Your task to perform on an android device: add a contact in the contacts app Image 0: 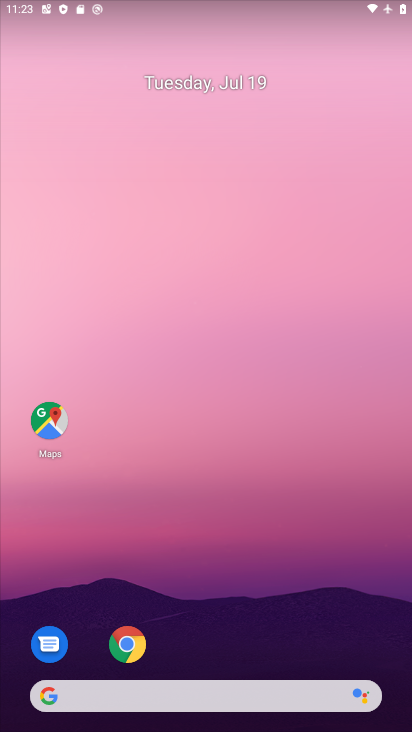
Step 0: drag from (30, 691) to (270, 141)
Your task to perform on an android device: add a contact in the contacts app Image 1: 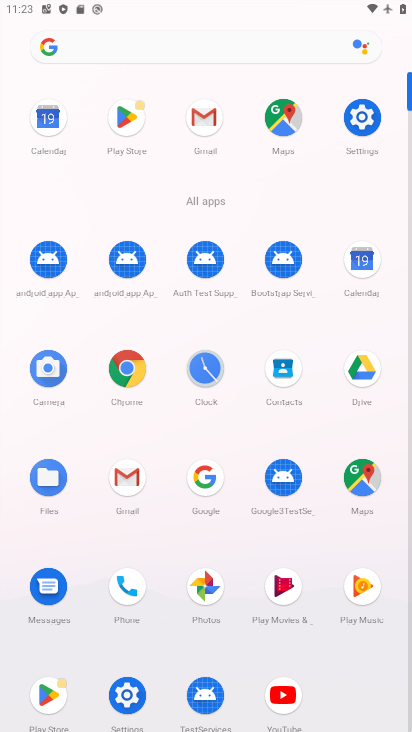
Step 1: click (275, 371)
Your task to perform on an android device: add a contact in the contacts app Image 2: 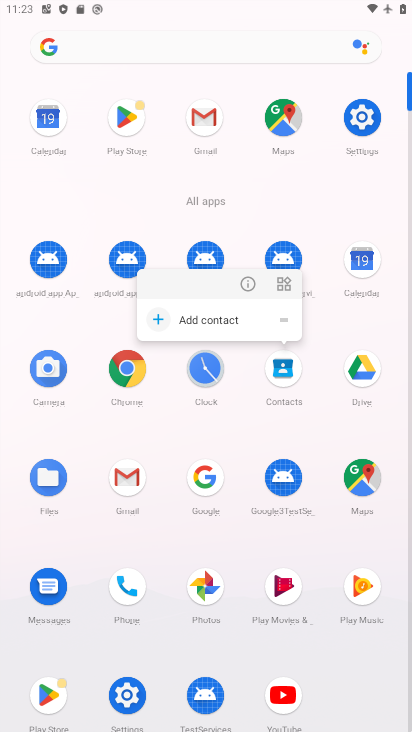
Step 2: click (284, 380)
Your task to perform on an android device: add a contact in the contacts app Image 3: 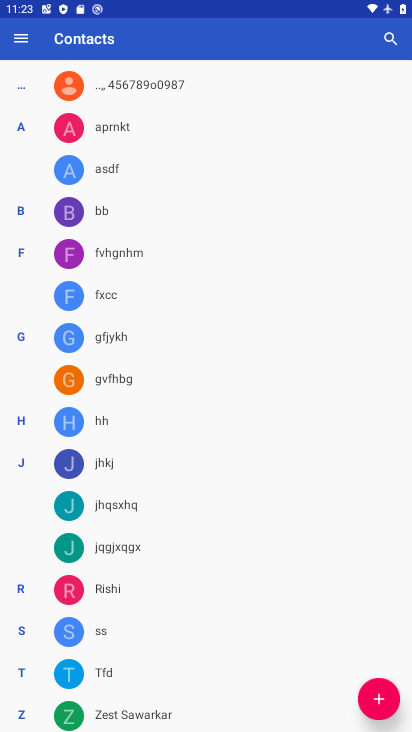
Step 3: click (368, 697)
Your task to perform on an android device: add a contact in the contacts app Image 4: 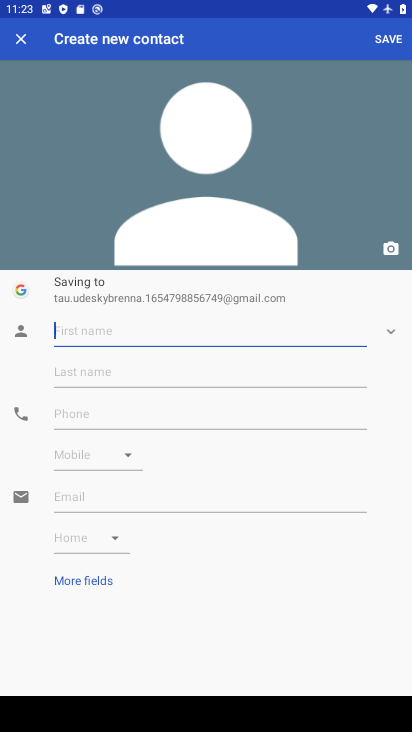
Step 4: click (75, 331)
Your task to perform on an android device: add a contact in the contacts app Image 5: 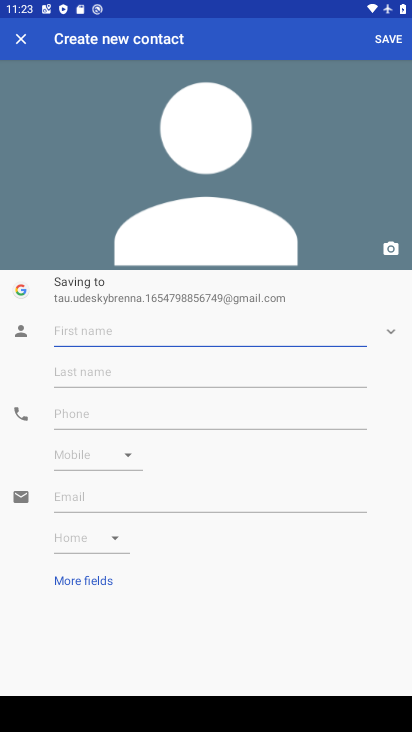
Step 5: type "rdfhdfdh"
Your task to perform on an android device: add a contact in the contacts app Image 6: 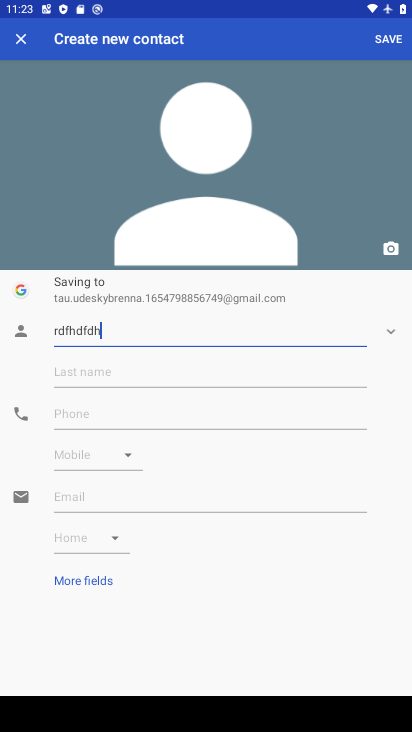
Step 6: type ""
Your task to perform on an android device: add a contact in the contacts app Image 7: 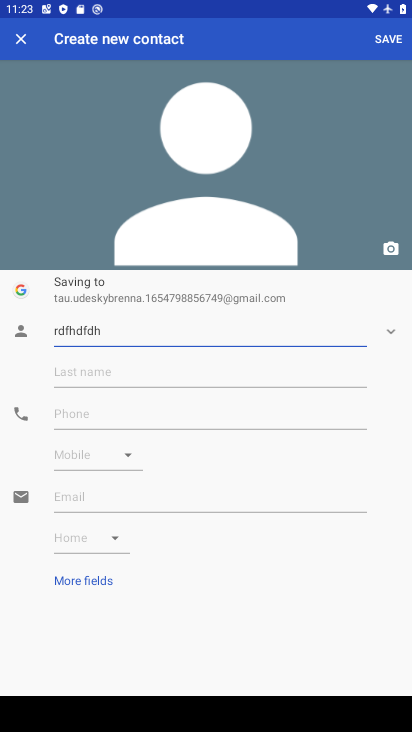
Step 7: click (380, 39)
Your task to perform on an android device: add a contact in the contacts app Image 8: 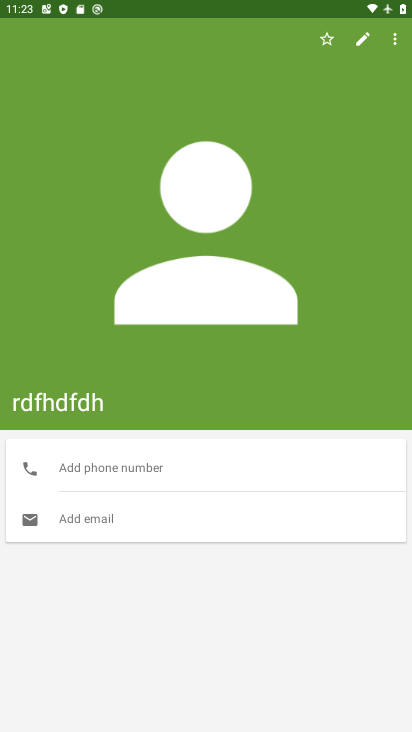
Step 8: task complete